Your task to perform on an android device: toggle pop-ups in chrome Image 0: 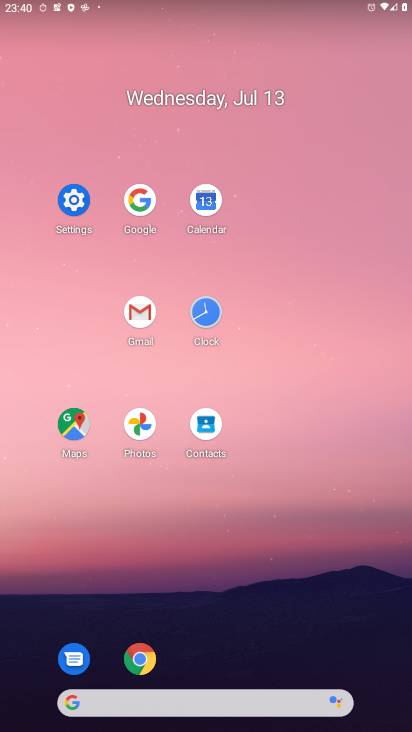
Step 0: click (128, 660)
Your task to perform on an android device: toggle pop-ups in chrome Image 1: 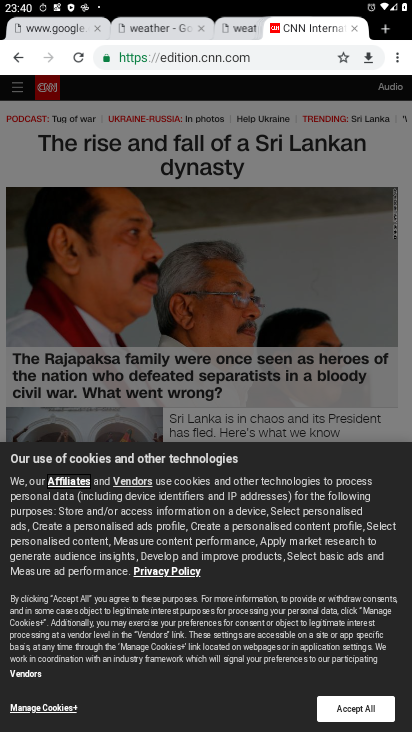
Step 1: click (400, 62)
Your task to perform on an android device: toggle pop-ups in chrome Image 2: 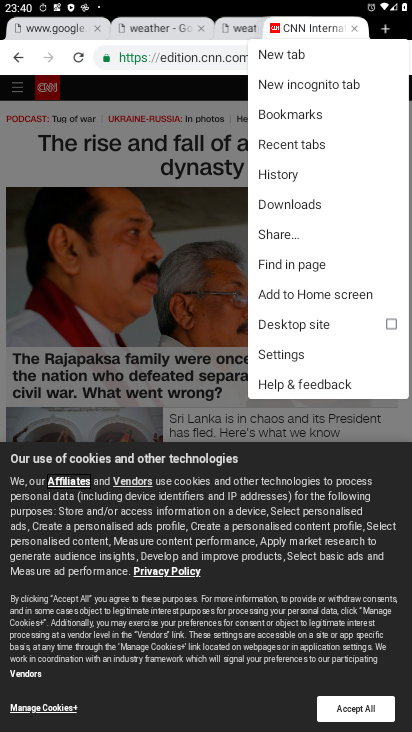
Step 2: click (298, 357)
Your task to perform on an android device: toggle pop-ups in chrome Image 3: 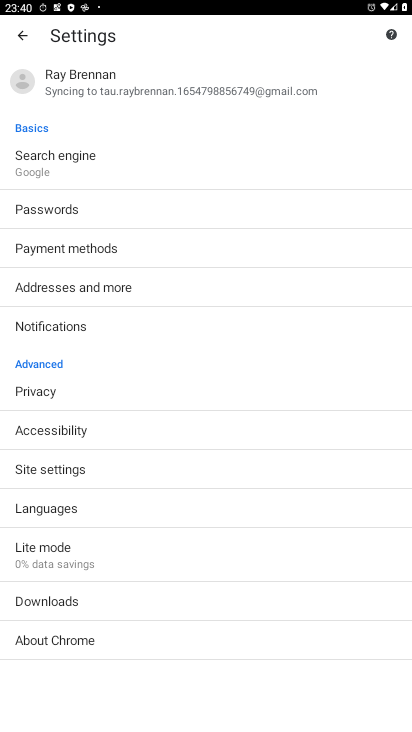
Step 3: click (87, 471)
Your task to perform on an android device: toggle pop-ups in chrome Image 4: 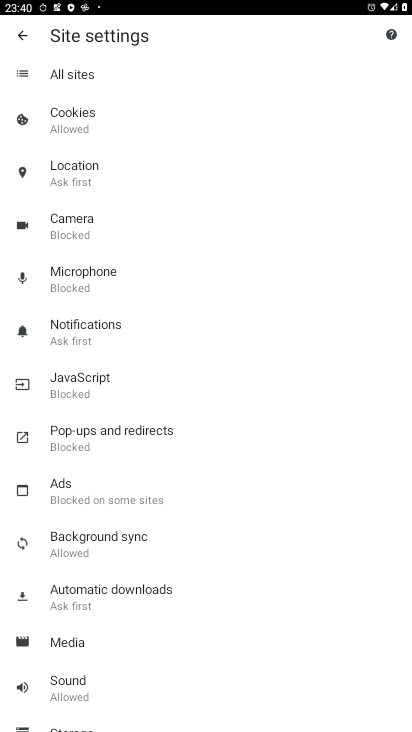
Step 4: click (147, 442)
Your task to perform on an android device: toggle pop-ups in chrome Image 5: 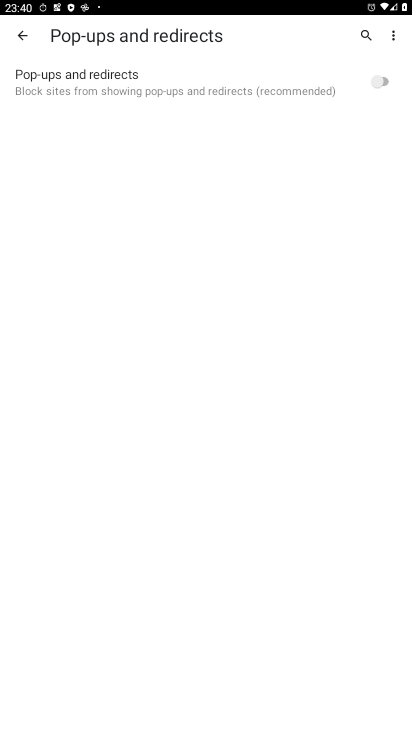
Step 5: click (383, 86)
Your task to perform on an android device: toggle pop-ups in chrome Image 6: 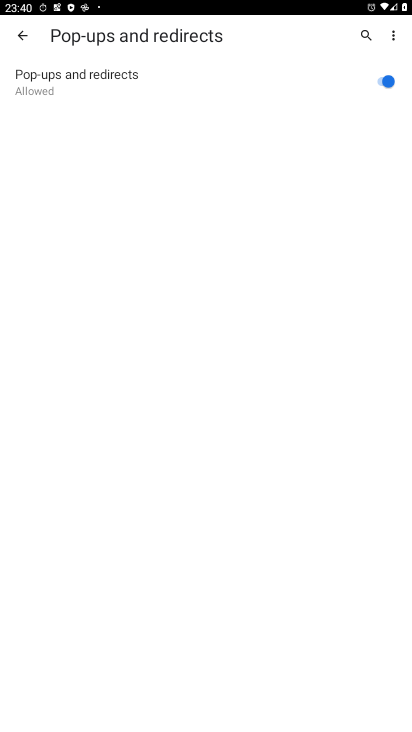
Step 6: task complete